Your task to perform on an android device: change the clock style Image 0: 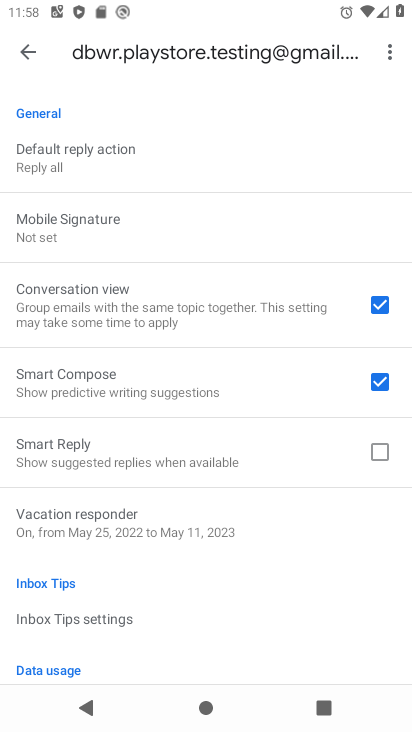
Step 0: press home button
Your task to perform on an android device: change the clock style Image 1: 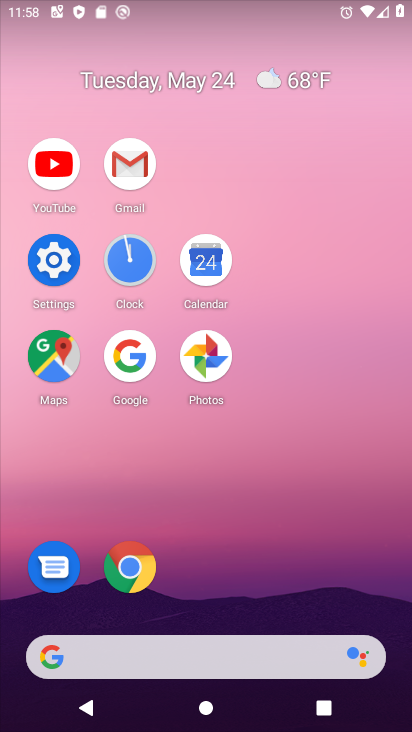
Step 1: click (139, 263)
Your task to perform on an android device: change the clock style Image 2: 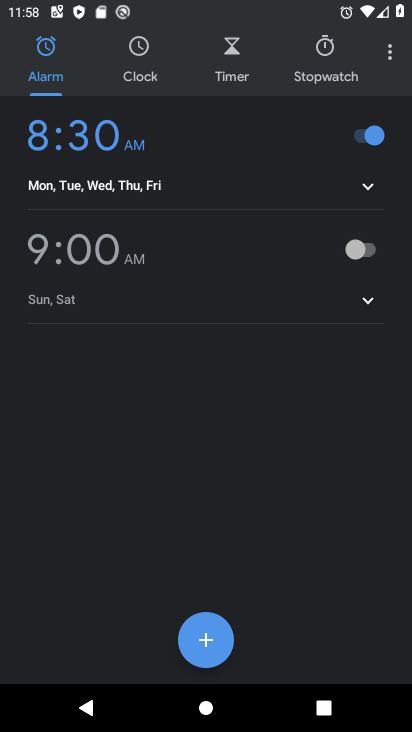
Step 2: click (384, 64)
Your task to perform on an android device: change the clock style Image 3: 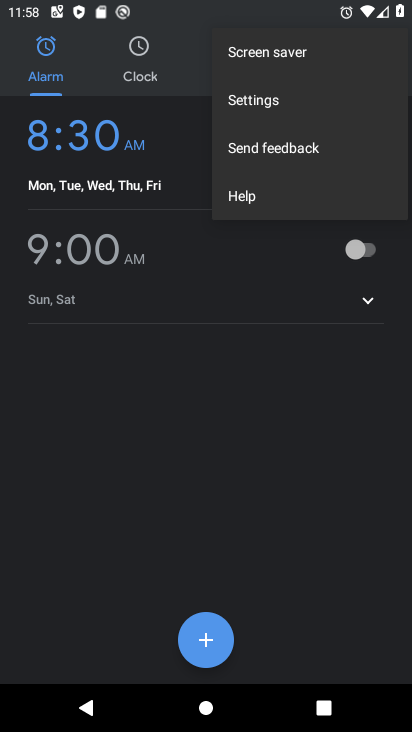
Step 3: click (271, 103)
Your task to perform on an android device: change the clock style Image 4: 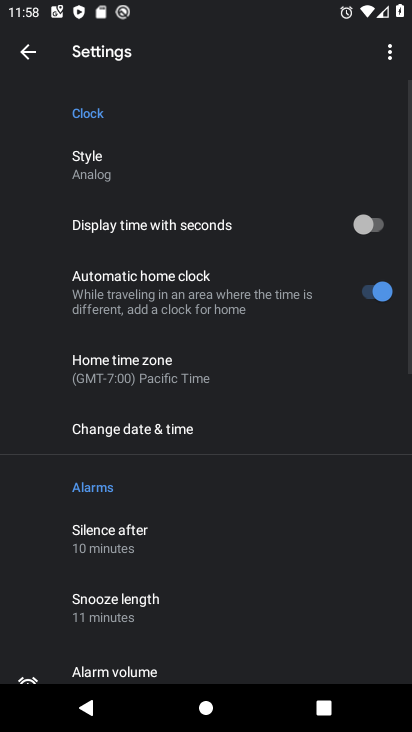
Step 4: click (92, 179)
Your task to perform on an android device: change the clock style Image 5: 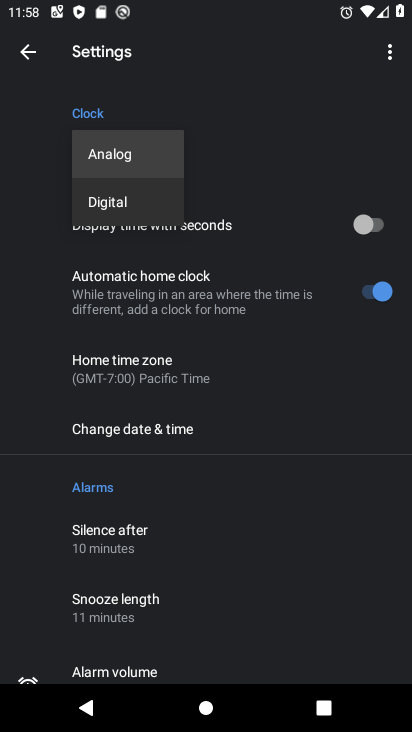
Step 5: click (155, 201)
Your task to perform on an android device: change the clock style Image 6: 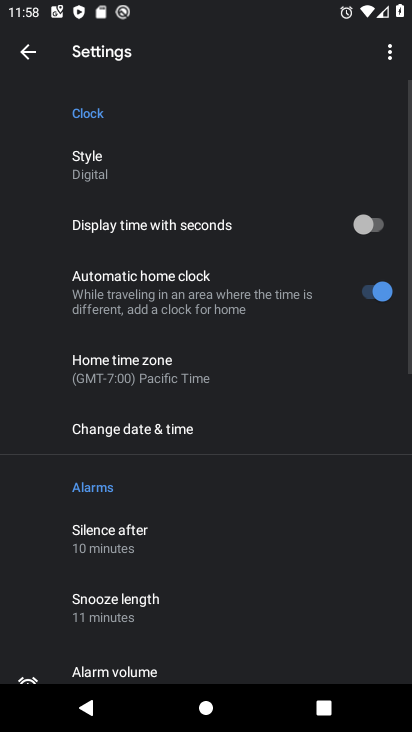
Step 6: task complete